Your task to perform on an android device: Search for Italian restaurants on Maps Image 0: 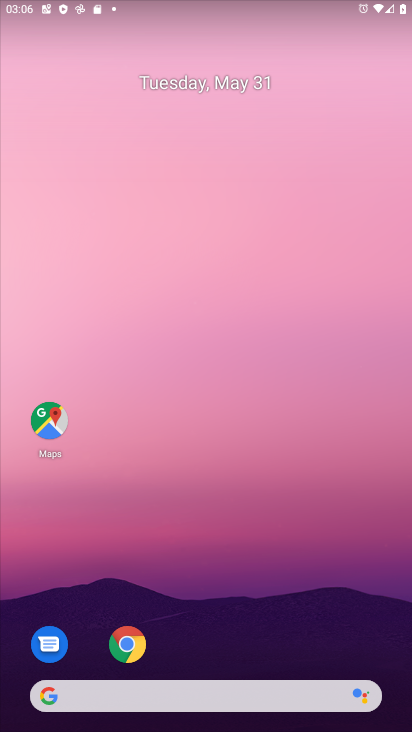
Step 0: click (43, 420)
Your task to perform on an android device: Search for Italian restaurants on Maps Image 1: 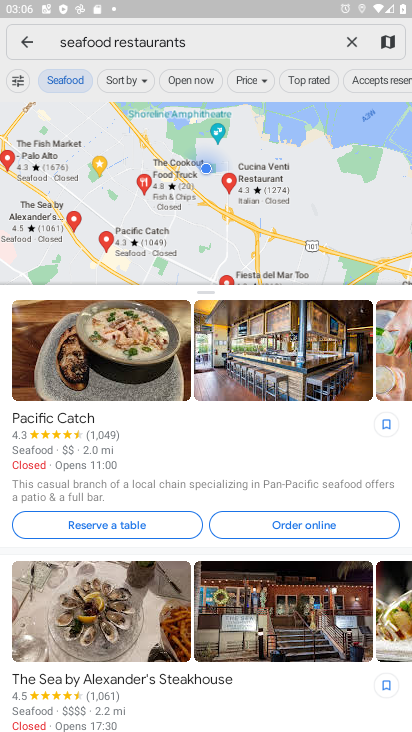
Step 1: click (352, 38)
Your task to perform on an android device: Search for Italian restaurants on Maps Image 2: 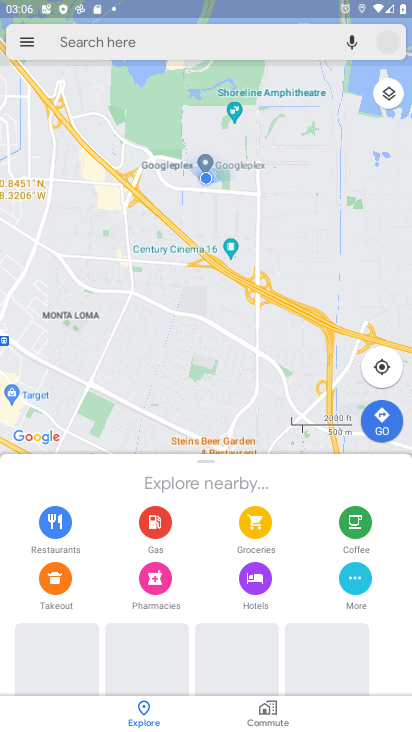
Step 2: click (279, 47)
Your task to perform on an android device: Search for Italian restaurants on Maps Image 3: 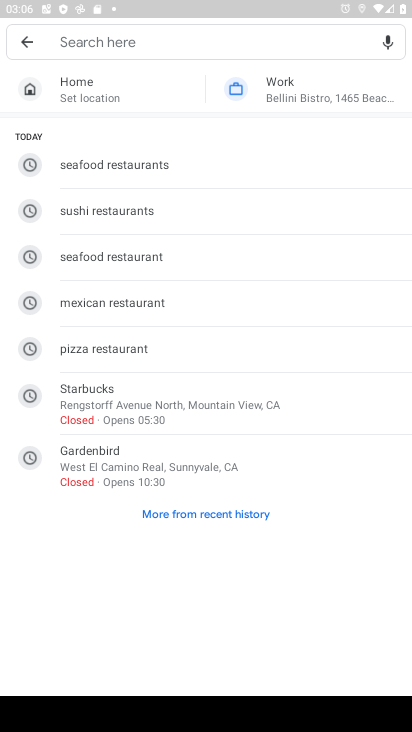
Step 3: type "Italian restaurants"
Your task to perform on an android device: Search for Italian restaurants on Maps Image 4: 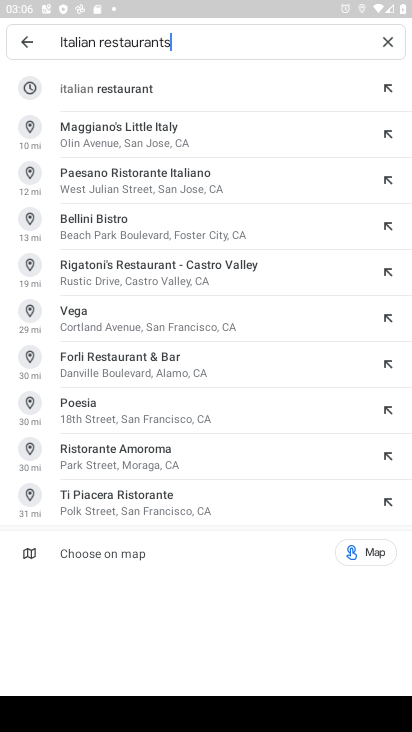
Step 4: press enter
Your task to perform on an android device: Search for Italian restaurants on Maps Image 5: 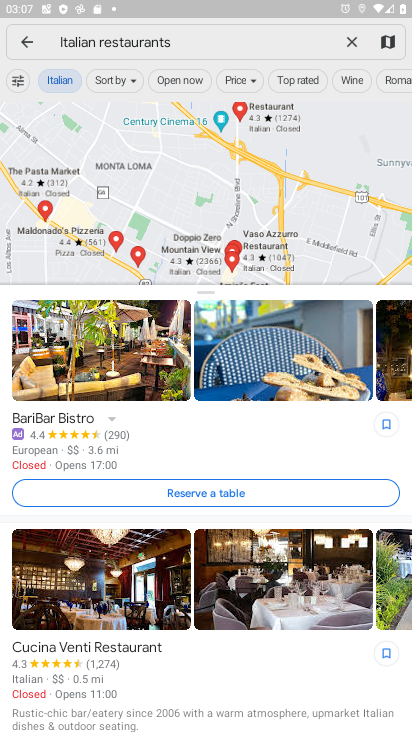
Step 5: task complete